Your task to perform on an android device: turn on showing notifications on the lock screen Image 0: 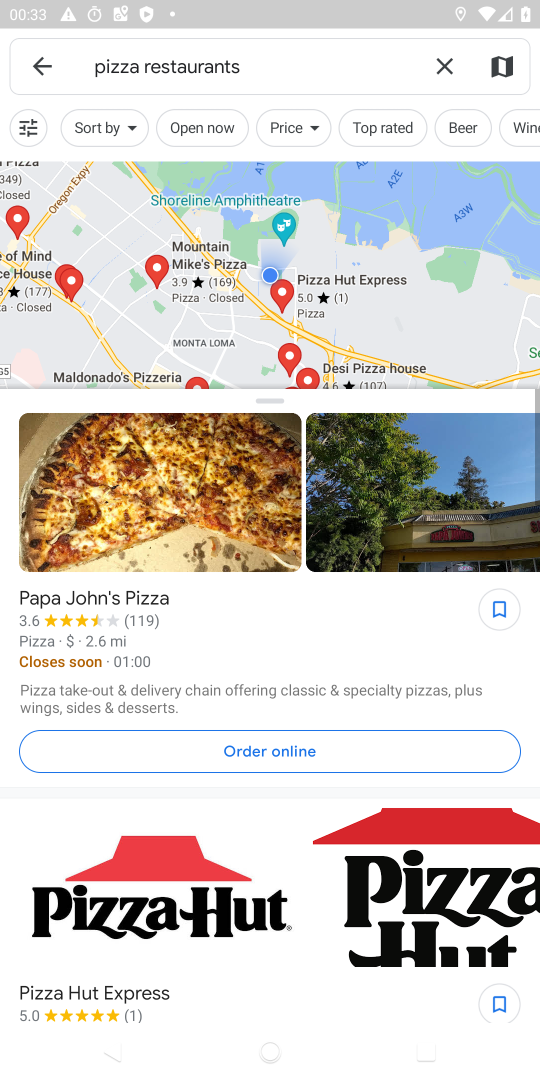
Step 0: press home button
Your task to perform on an android device: turn on showing notifications on the lock screen Image 1: 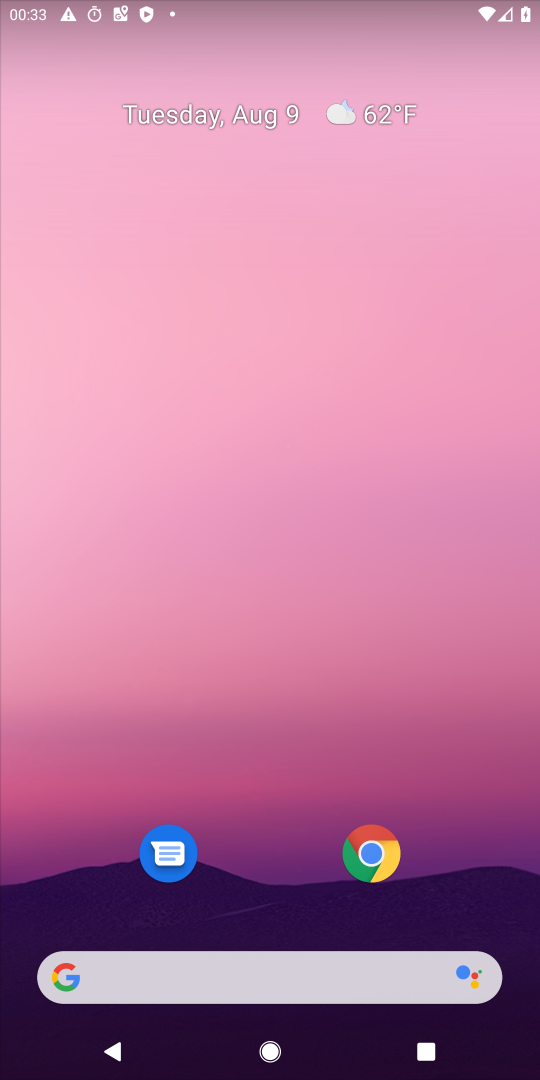
Step 1: drag from (271, 878) to (239, 18)
Your task to perform on an android device: turn on showing notifications on the lock screen Image 2: 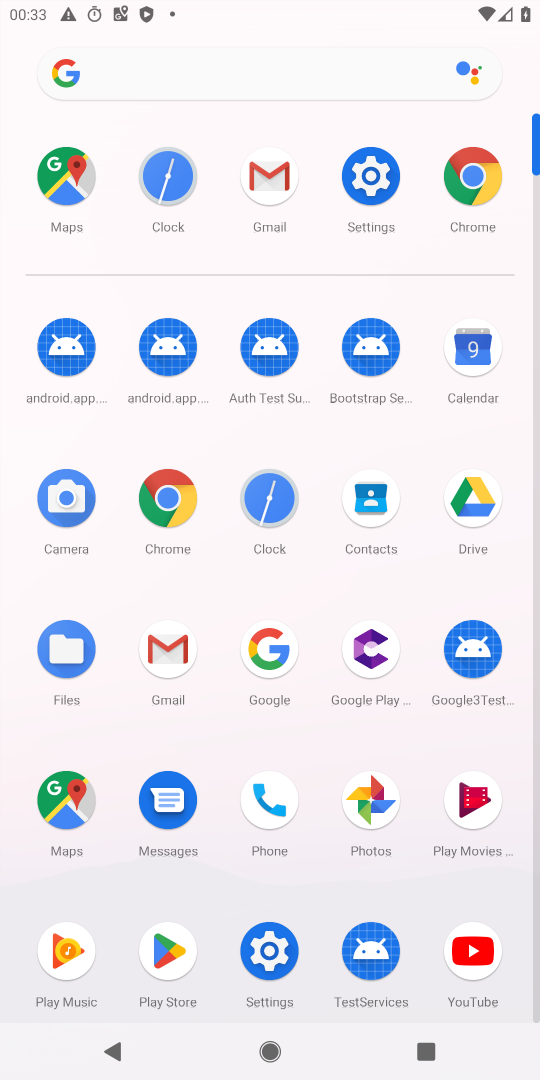
Step 2: click (373, 183)
Your task to perform on an android device: turn on showing notifications on the lock screen Image 3: 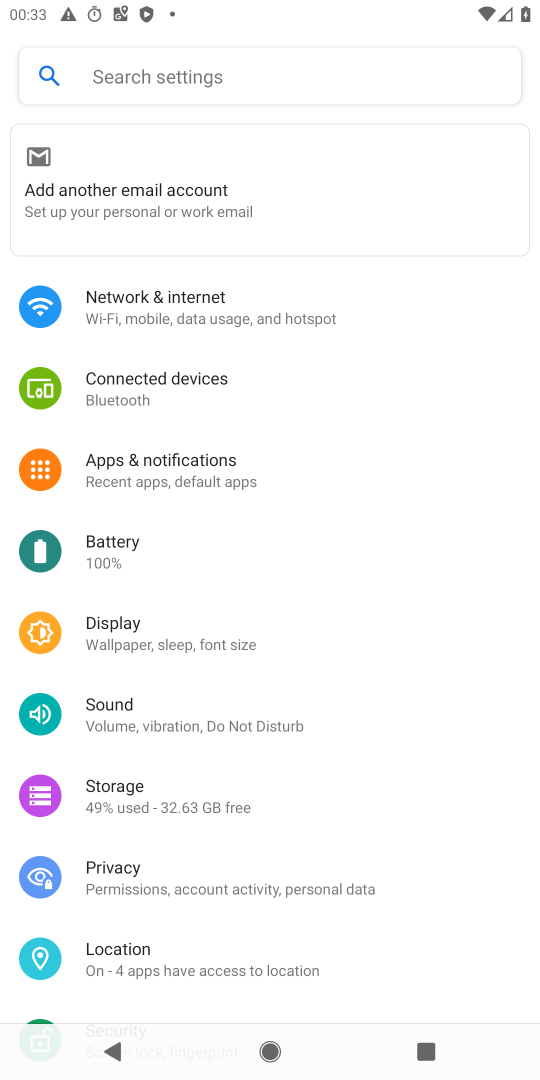
Step 3: click (163, 458)
Your task to perform on an android device: turn on showing notifications on the lock screen Image 4: 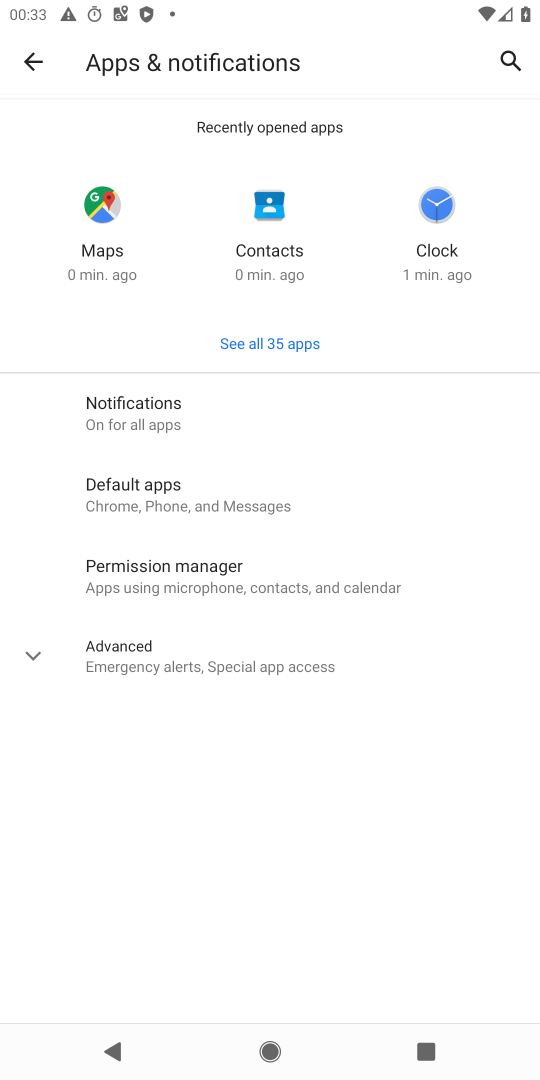
Step 4: click (172, 422)
Your task to perform on an android device: turn on showing notifications on the lock screen Image 5: 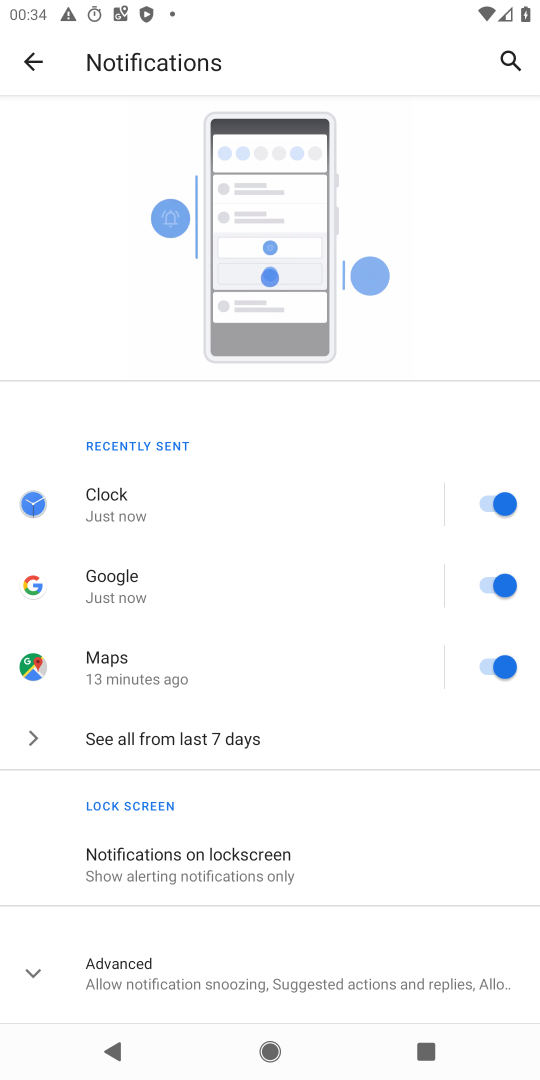
Step 5: click (156, 883)
Your task to perform on an android device: turn on showing notifications on the lock screen Image 6: 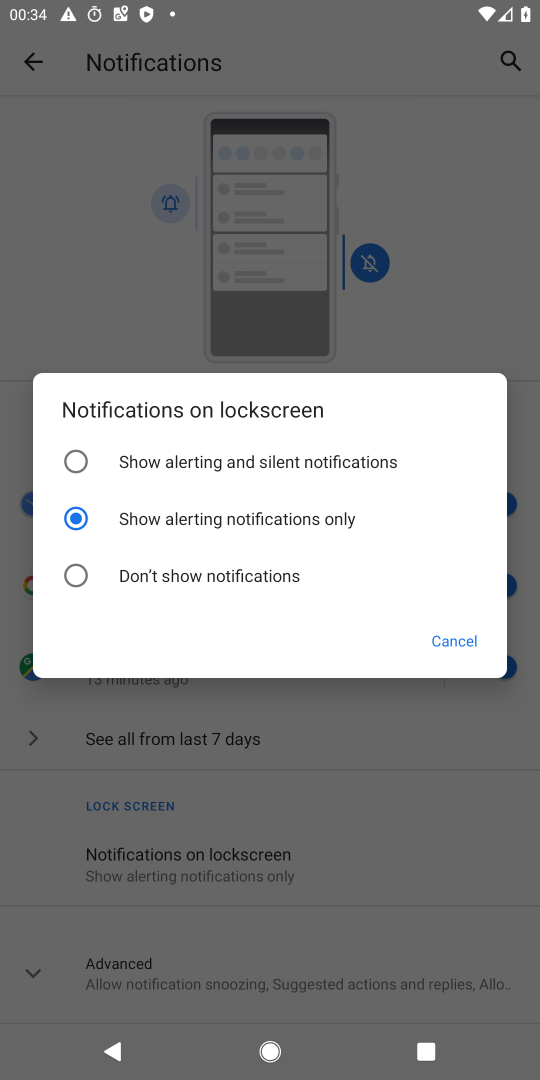
Step 6: click (259, 450)
Your task to perform on an android device: turn on showing notifications on the lock screen Image 7: 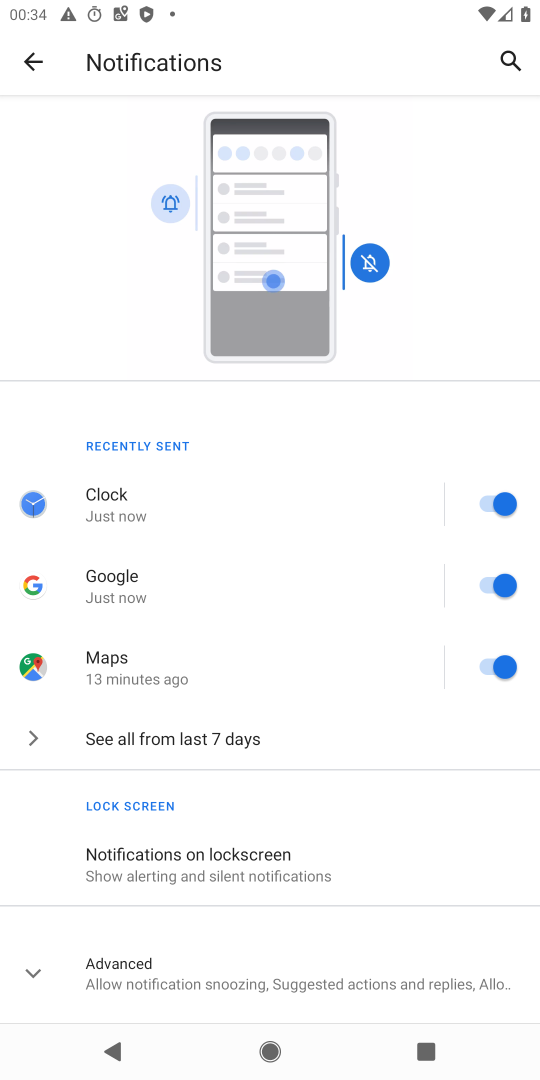
Step 7: task complete